Your task to perform on an android device: Open Reddit.com Image 0: 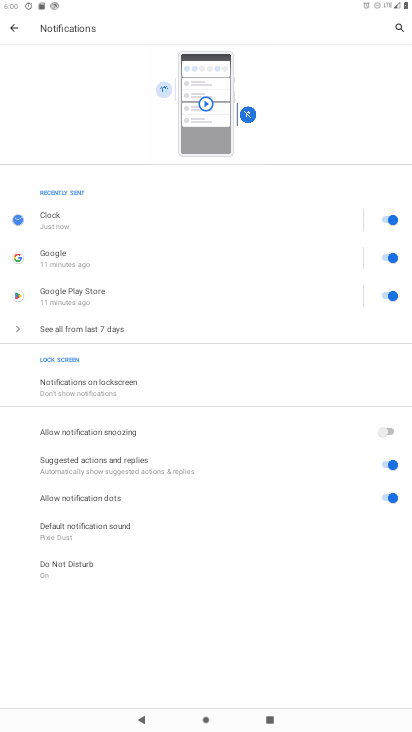
Step 0: press home button
Your task to perform on an android device: Open Reddit.com Image 1: 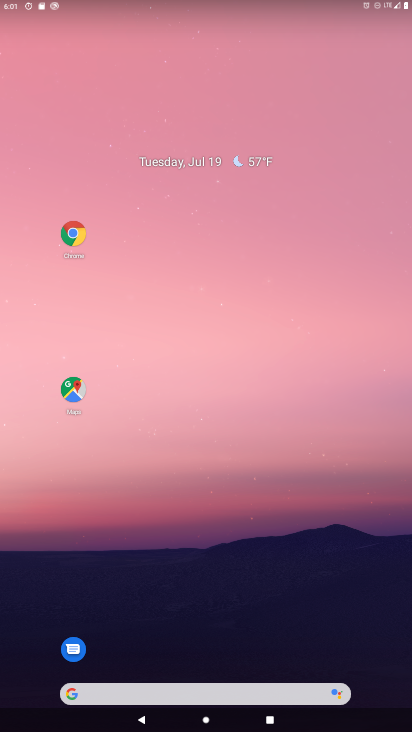
Step 1: click (76, 239)
Your task to perform on an android device: Open Reddit.com Image 2: 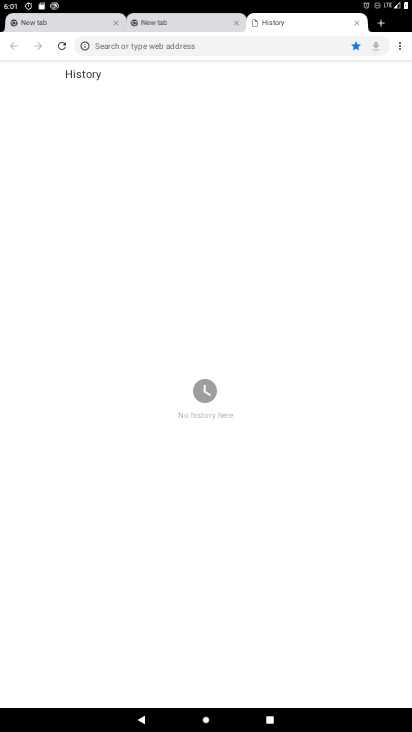
Step 2: click (355, 25)
Your task to perform on an android device: Open Reddit.com Image 3: 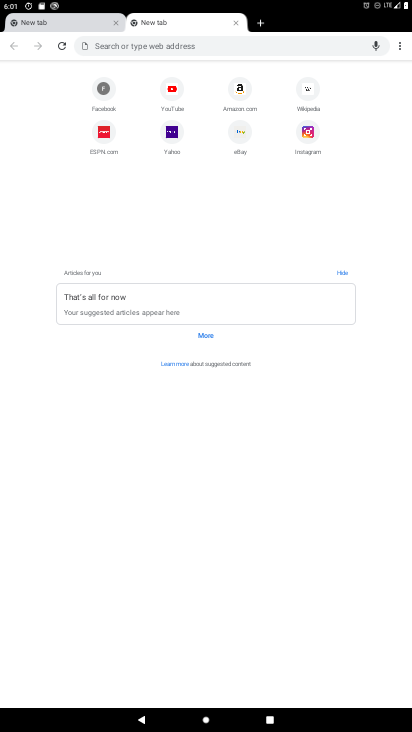
Step 3: click (236, 25)
Your task to perform on an android device: Open Reddit.com Image 4: 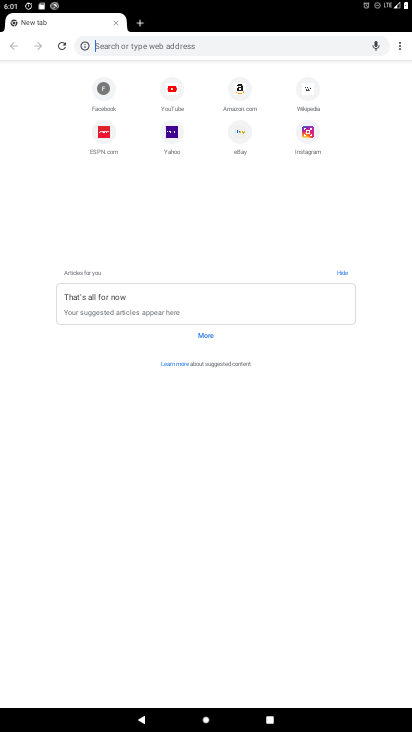
Step 4: click (177, 53)
Your task to perform on an android device: Open Reddit.com Image 5: 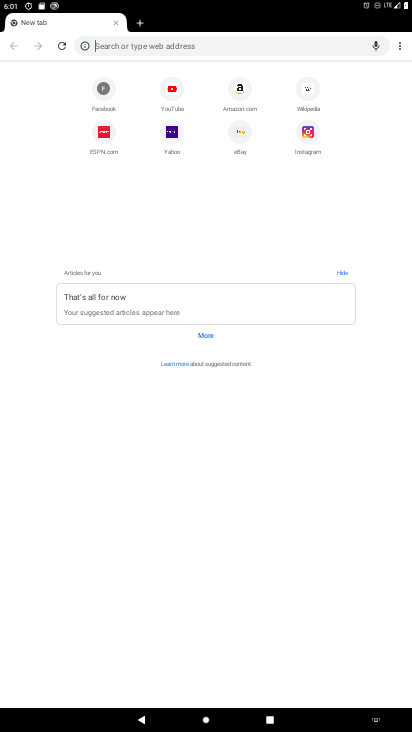
Step 5: type "www.reddit.com"
Your task to perform on an android device: Open Reddit.com Image 6: 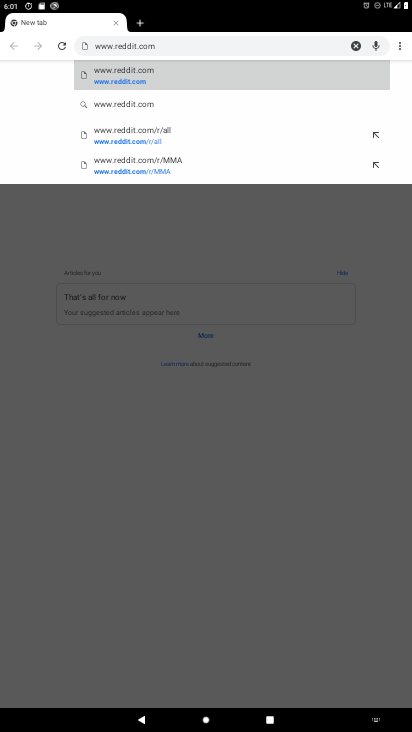
Step 6: click (116, 80)
Your task to perform on an android device: Open Reddit.com Image 7: 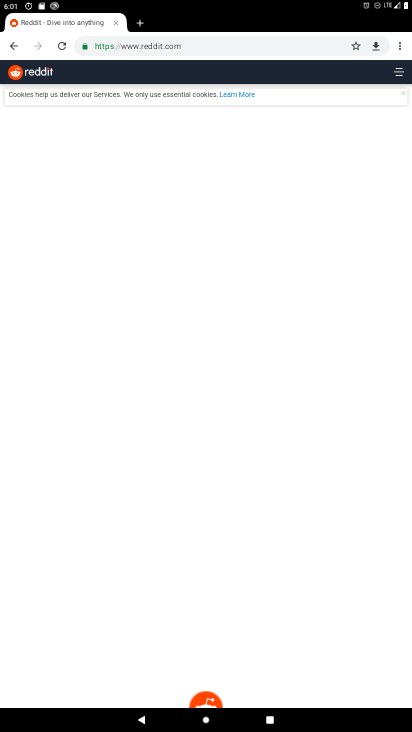
Step 7: task complete